Your task to perform on an android device: Open privacy settings Image 0: 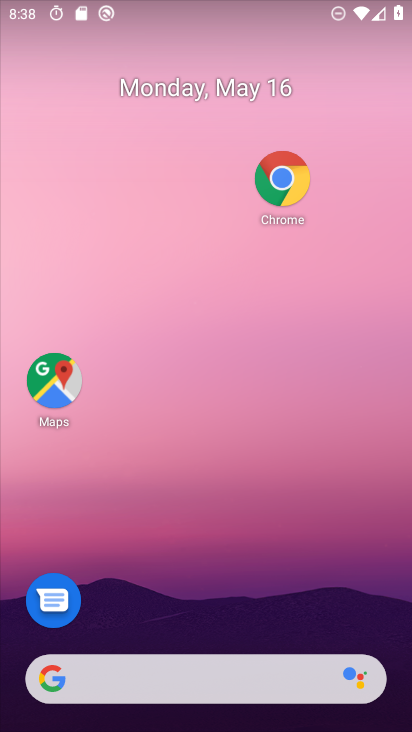
Step 0: drag from (173, 691) to (280, 273)
Your task to perform on an android device: Open privacy settings Image 1: 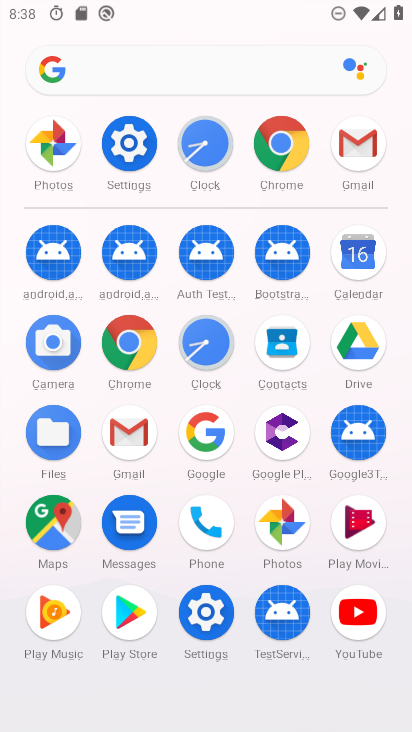
Step 1: click (122, 157)
Your task to perform on an android device: Open privacy settings Image 2: 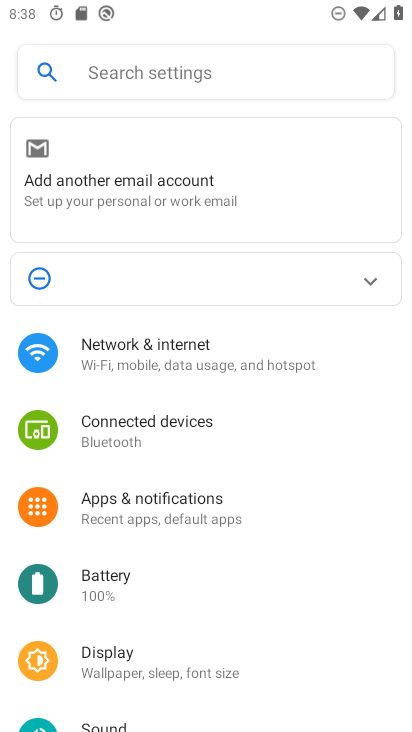
Step 2: drag from (243, 618) to (338, 189)
Your task to perform on an android device: Open privacy settings Image 3: 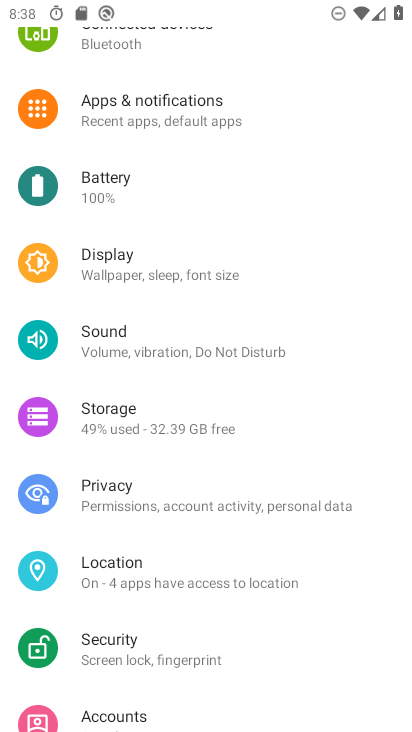
Step 3: click (117, 495)
Your task to perform on an android device: Open privacy settings Image 4: 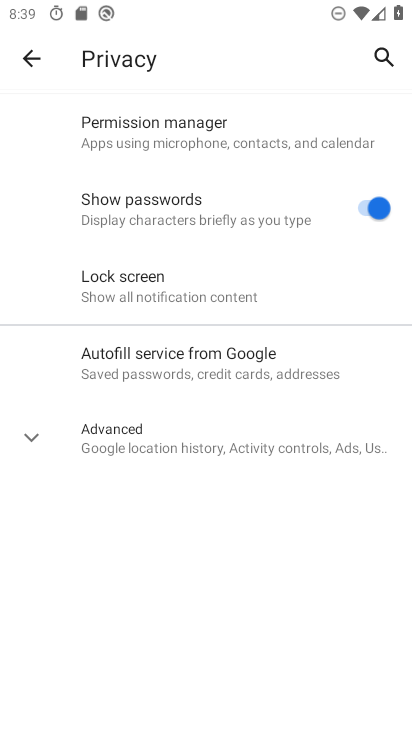
Step 4: task complete